Your task to perform on an android device: turn off javascript in the chrome app Image 0: 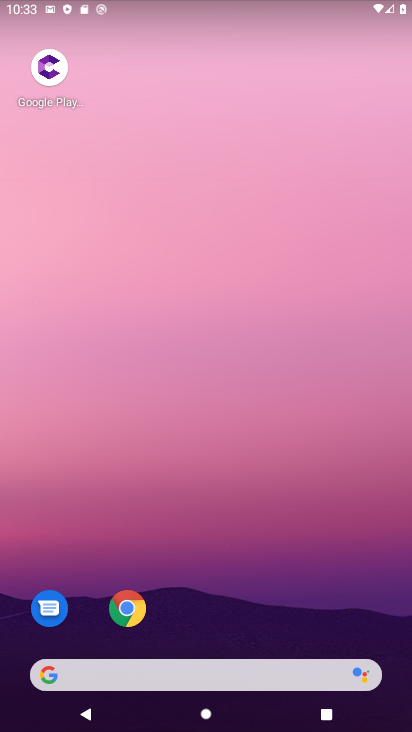
Step 0: click (128, 605)
Your task to perform on an android device: turn off javascript in the chrome app Image 1: 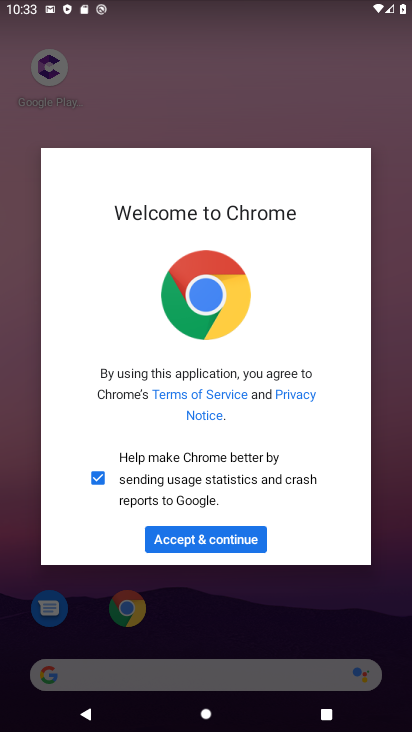
Step 1: click (222, 537)
Your task to perform on an android device: turn off javascript in the chrome app Image 2: 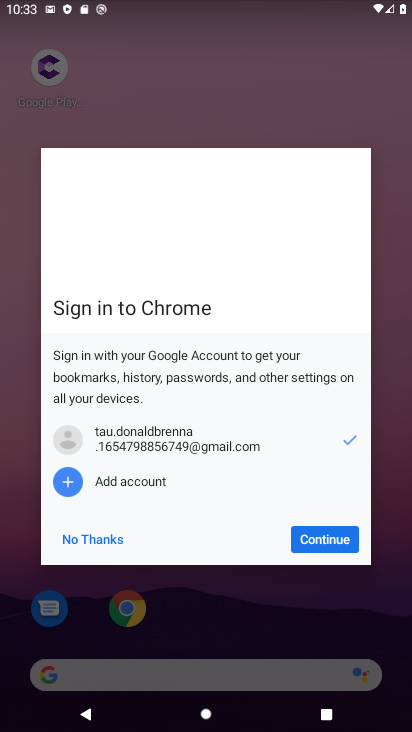
Step 2: click (297, 548)
Your task to perform on an android device: turn off javascript in the chrome app Image 3: 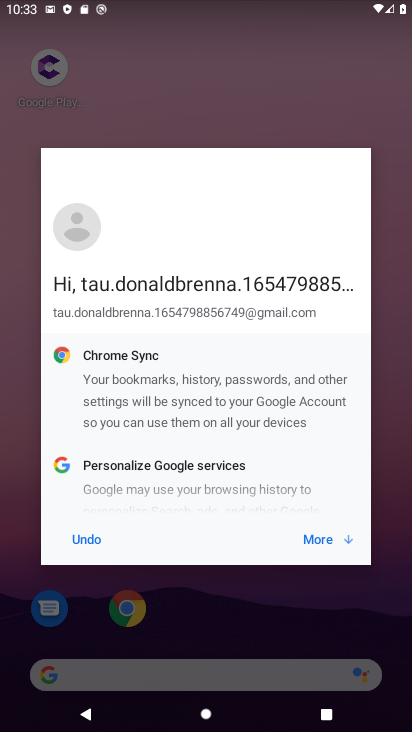
Step 3: click (306, 537)
Your task to perform on an android device: turn off javascript in the chrome app Image 4: 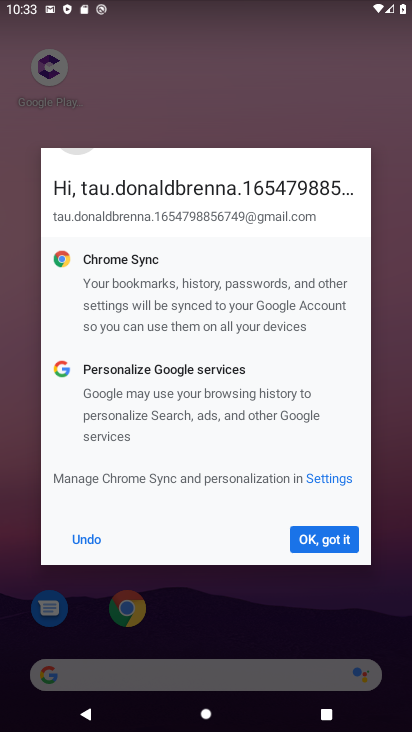
Step 4: click (306, 536)
Your task to perform on an android device: turn off javascript in the chrome app Image 5: 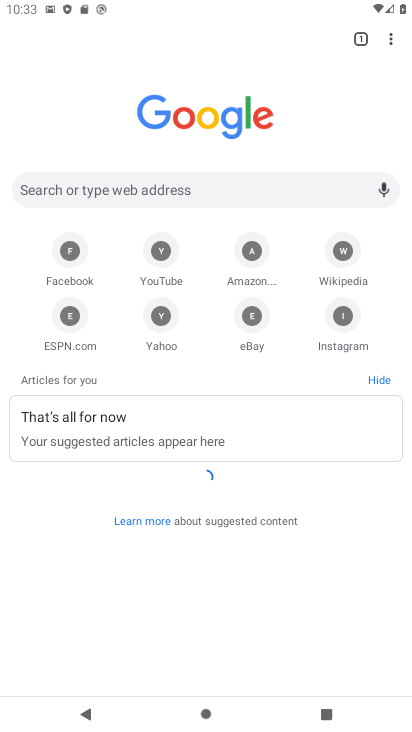
Step 5: click (387, 30)
Your task to perform on an android device: turn off javascript in the chrome app Image 6: 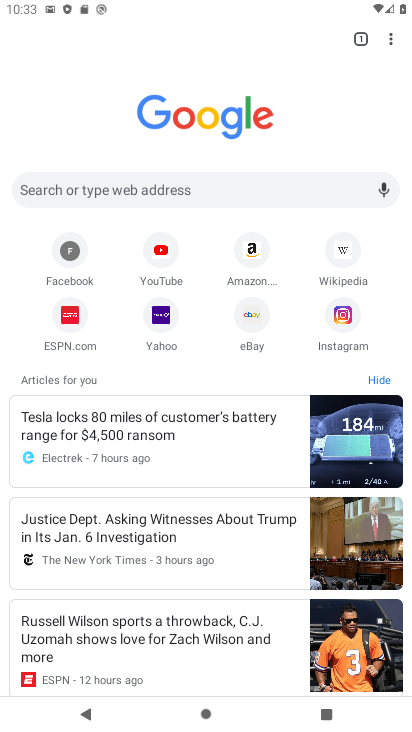
Step 6: click (391, 44)
Your task to perform on an android device: turn off javascript in the chrome app Image 7: 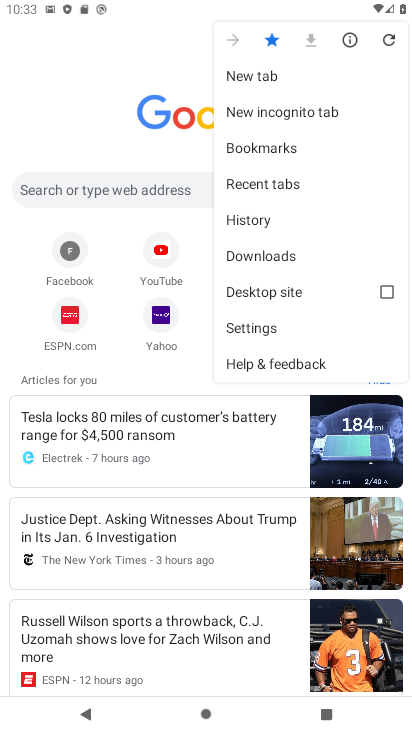
Step 7: click (318, 324)
Your task to perform on an android device: turn off javascript in the chrome app Image 8: 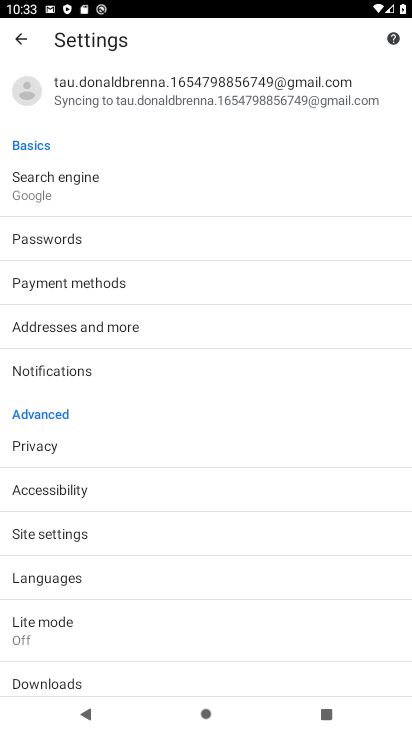
Step 8: drag from (91, 539) to (36, 539)
Your task to perform on an android device: turn off javascript in the chrome app Image 9: 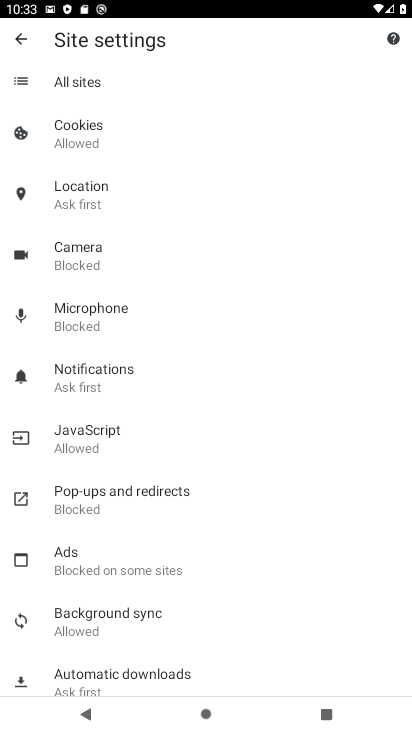
Step 9: click (111, 438)
Your task to perform on an android device: turn off javascript in the chrome app Image 10: 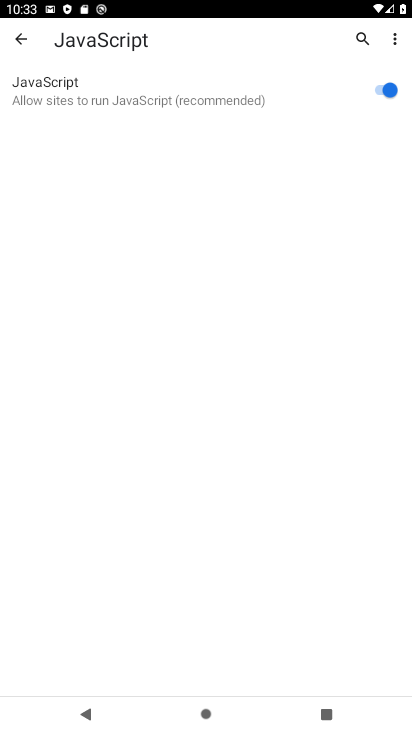
Step 10: click (380, 89)
Your task to perform on an android device: turn off javascript in the chrome app Image 11: 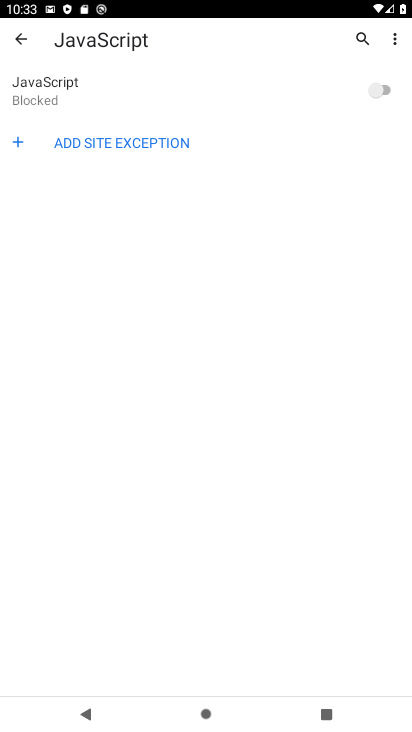
Step 11: task complete